Your task to perform on an android device: find which apps use the phone's location Image 0: 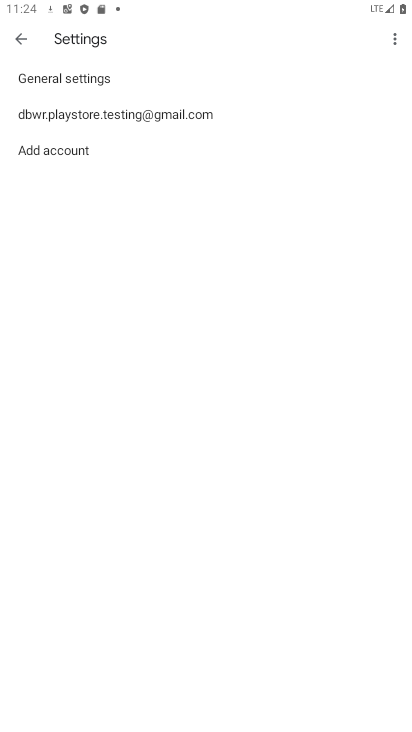
Step 0: press home button
Your task to perform on an android device: find which apps use the phone's location Image 1: 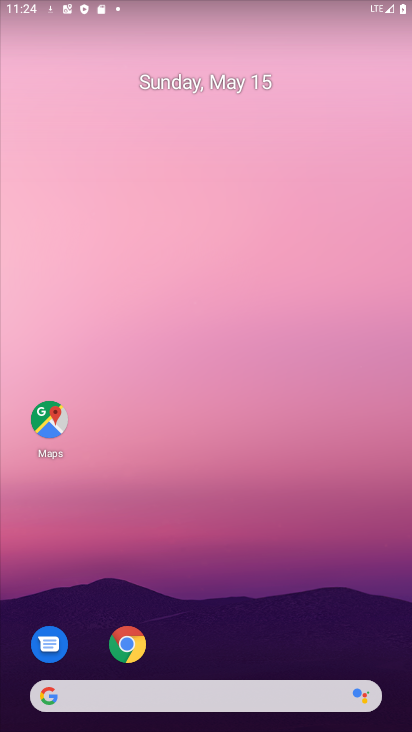
Step 1: drag from (211, 731) to (196, 279)
Your task to perform on an android device: find which apps use the phone's location Image 2: 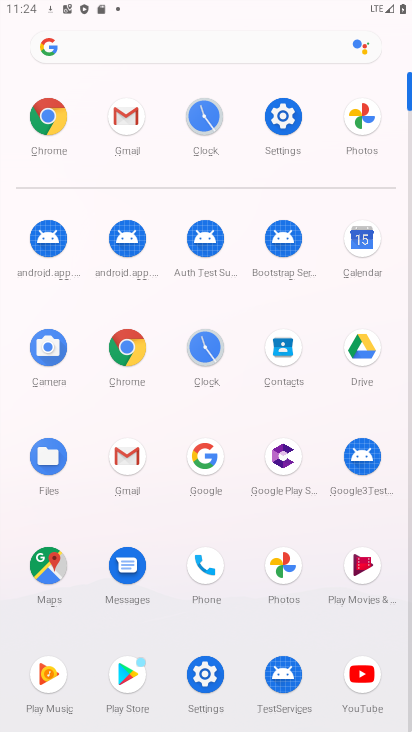
Step 2: click (210, 674)
Your task to perform on an android device: find which apps use the phone's location Image 3: 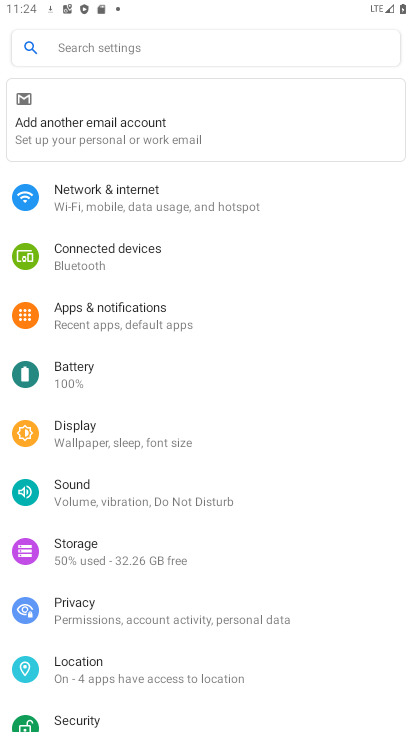
Step 3: click (157, 41)
Your task to perform on an android device: find which apps use the phone's location Image 4: 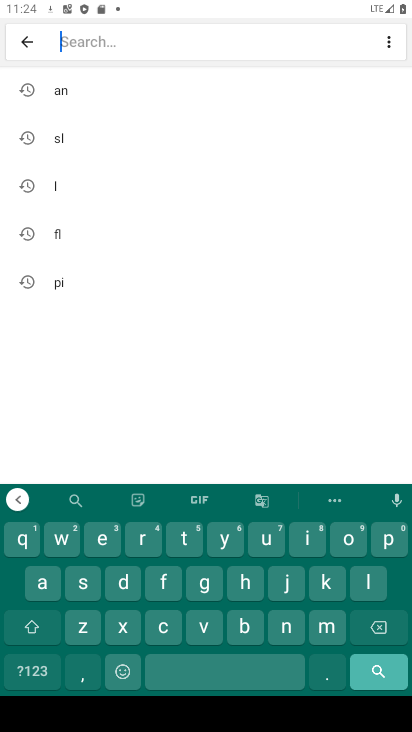
Step 4: click (81, 185)
Your task to perform on an android device: find which apps use the phone's location Image 5: 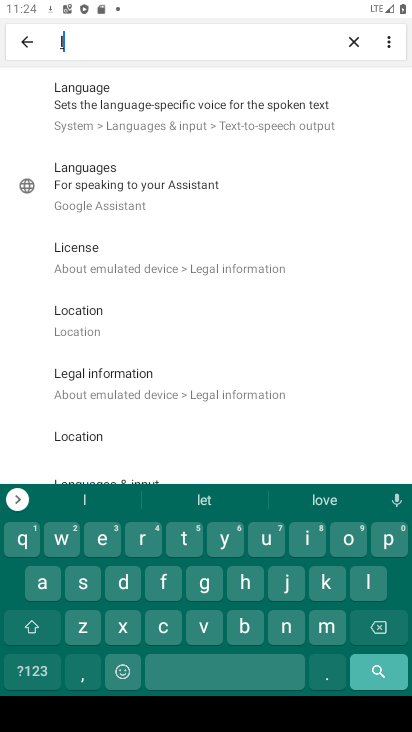
Step 5: click (99, 306)
Your task to perform on an android device: find which apps use the phone's location Image 6: 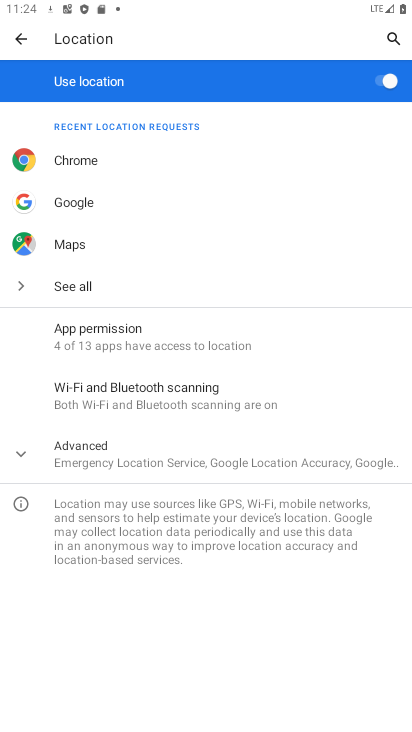
Step 6: task complete